Your task to perform on an android device: set an alarm Image 0: 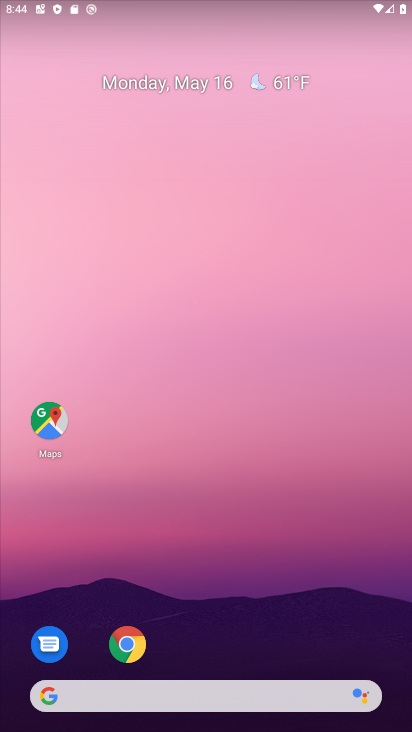
Step 0: drag from (234, 633) to (207, 102)
Your task to perform on an android device: set an alarm Image 1: 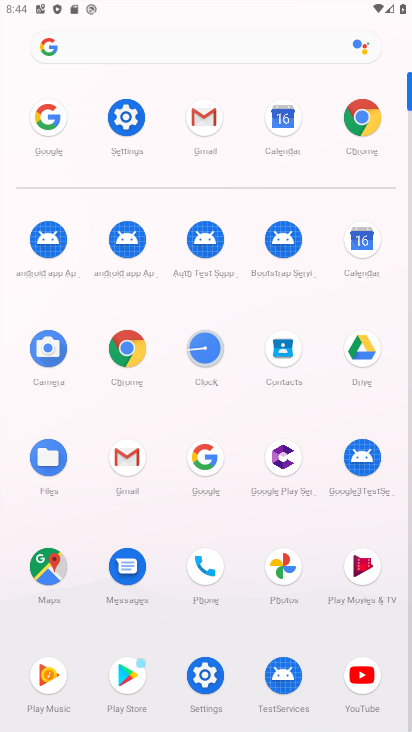
Step 1: click (204, 347)
Your task to perform on an android device: set an alarm Image 2: 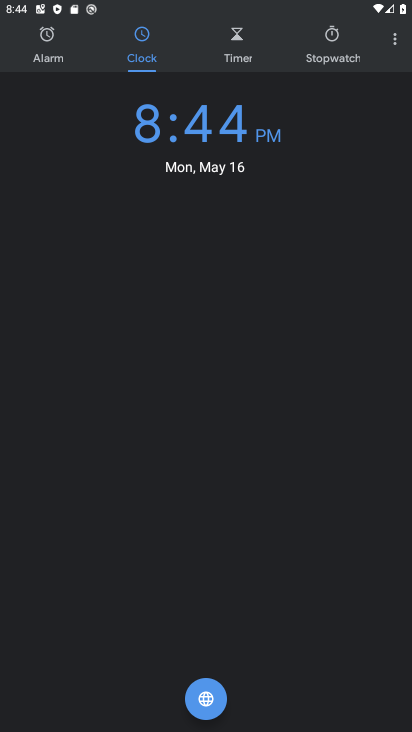
Step 2: click (51, 48)
Your task to perform on an android device: set an alarm Image 3: 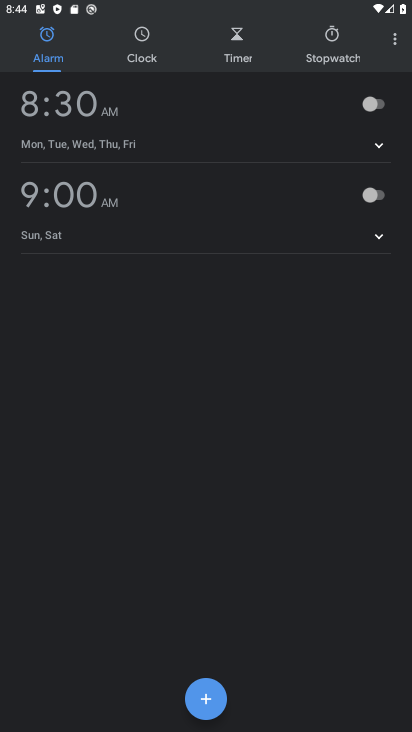
Step 3: click (380, 107)
Your task to perform on an android device: set an alarm Image 4: 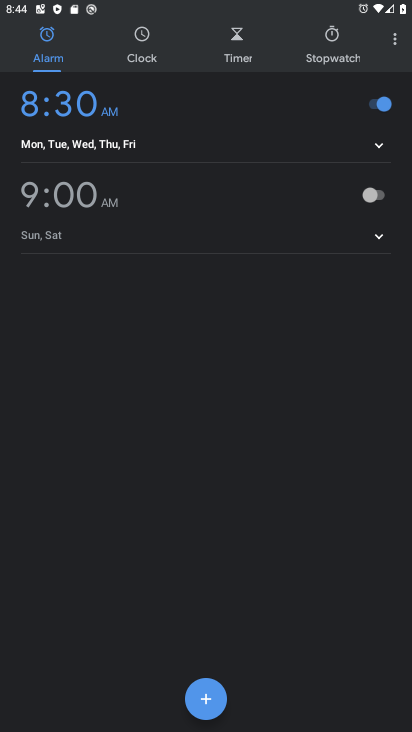
Step 4: task complete